Your task to perform on an android device: What is the recent news? Image 0: 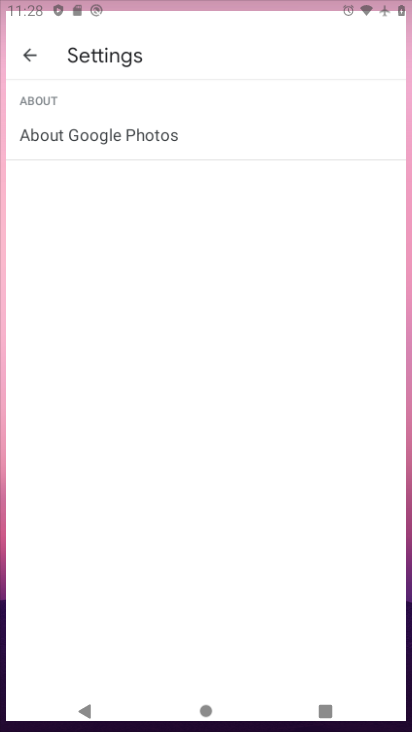
Step 0: press home button
Your task to perform on an android device: What is the recent news? Image 1: 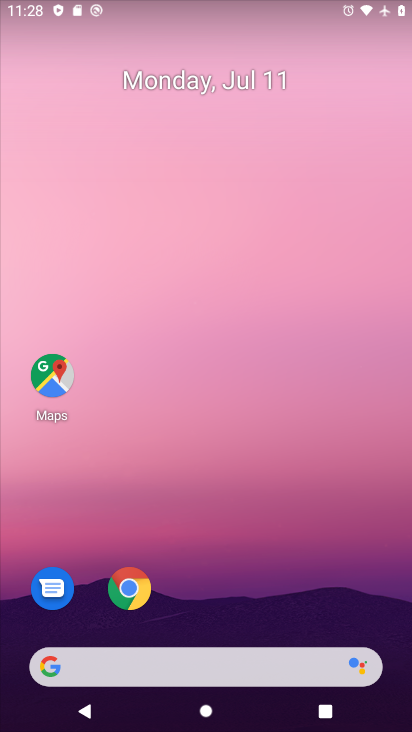
Step 1: click (165, 671)
Your task to perform on an android device: What is the recent news? Image 2: 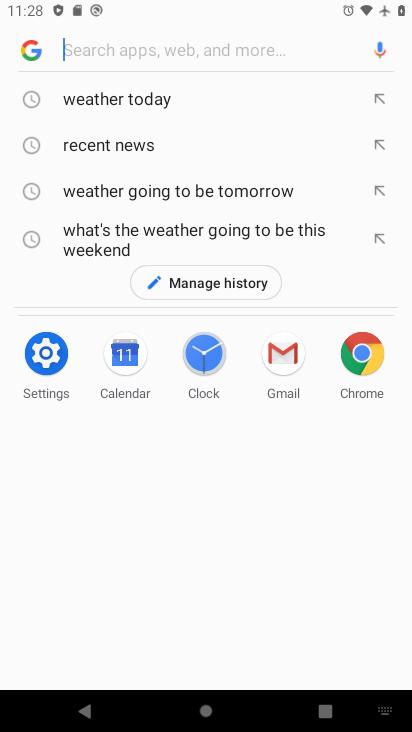
Step 2: click (129, 139)
Your task to perform on an android device: What is the recent news? Image 3: 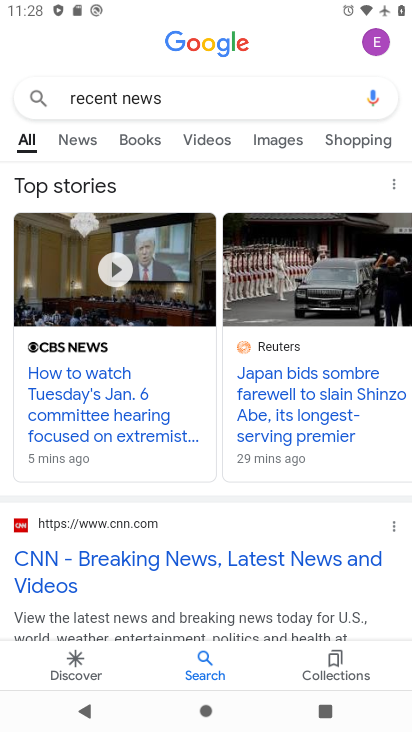
Step 3: click (86, 144)
Your task to perform on an android device: What is the recent news? Image 4: 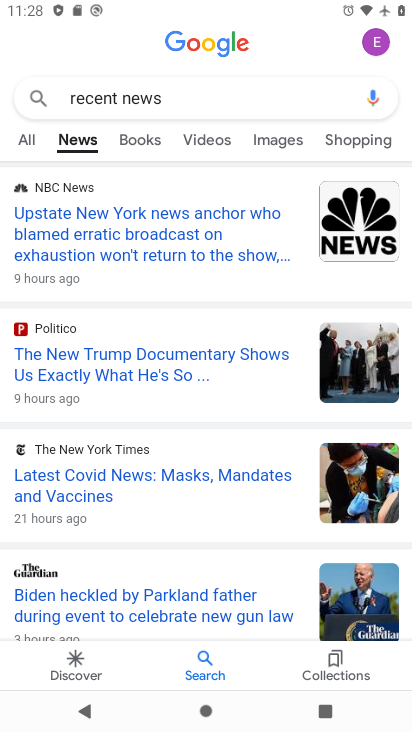
Step 4: task complete